Your task to perform on an android device: star an email in the gmail app Image 0: 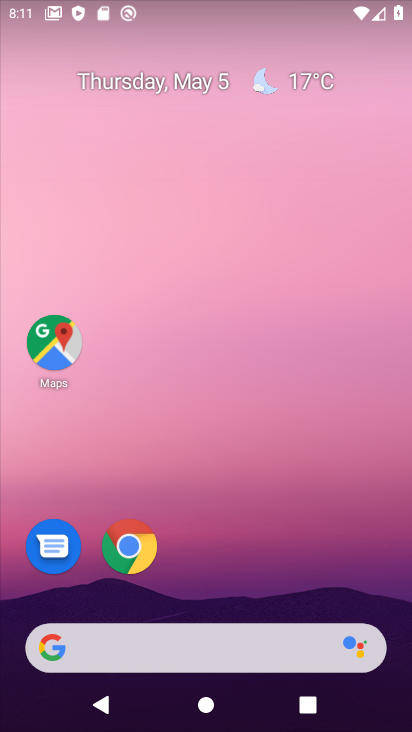
Step 0: drag from (139, 649) to (333, 65)
Your task to perform on an android device: star an email in the gmail app Image 1: 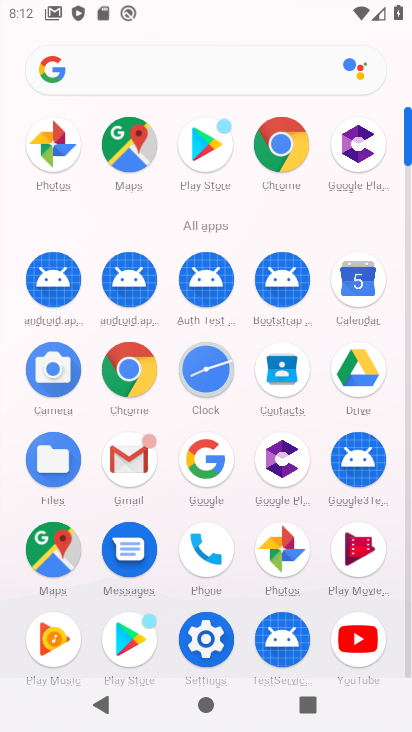
Step 1: click (130, 467)
Your task to perform on an android device: star an email in the gmail app Image 2: 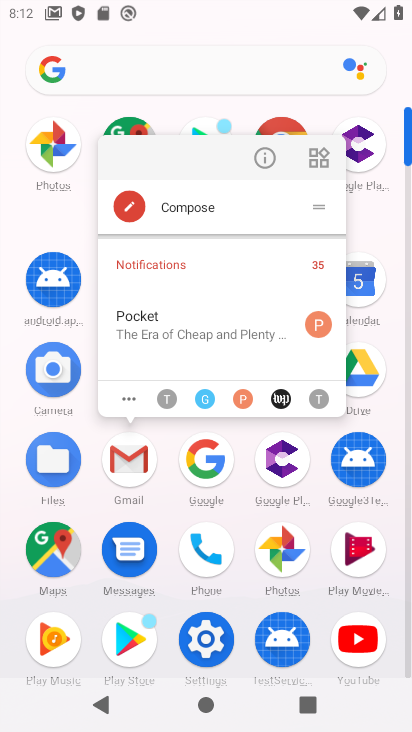
Step 2: click (124, 463)
Your task to perform on an android device: star an email in the gmail app Image 3: 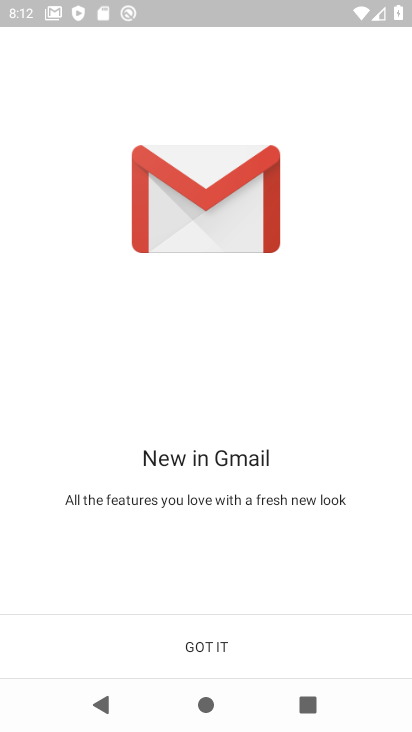
Step 3: click (215, 655)
Your task to perform on an android device: star an email in the gmail app Image 4: 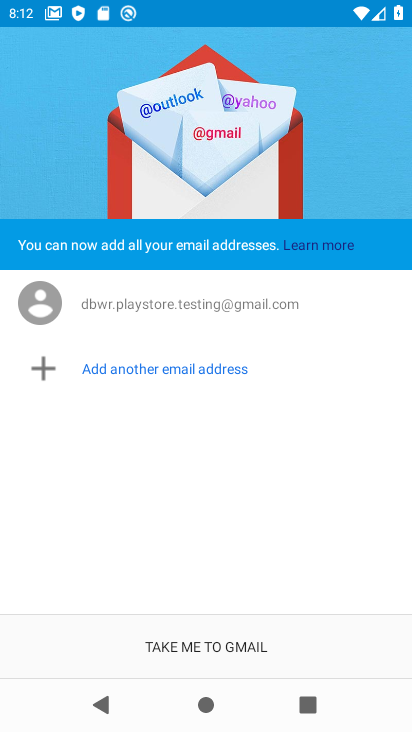
Step 4: click (211, 649)
Your task to perform on an android device: star an email in the gmail app Image 5: 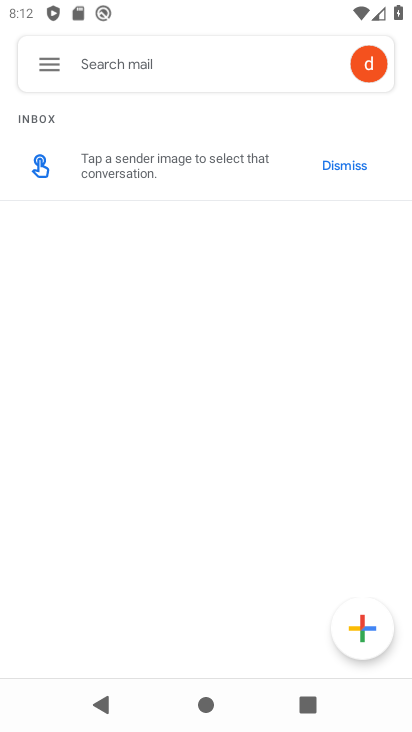
Step 5: click (46, 63)
Your task to perform on an android device: star an email in the gmail app Image 6: 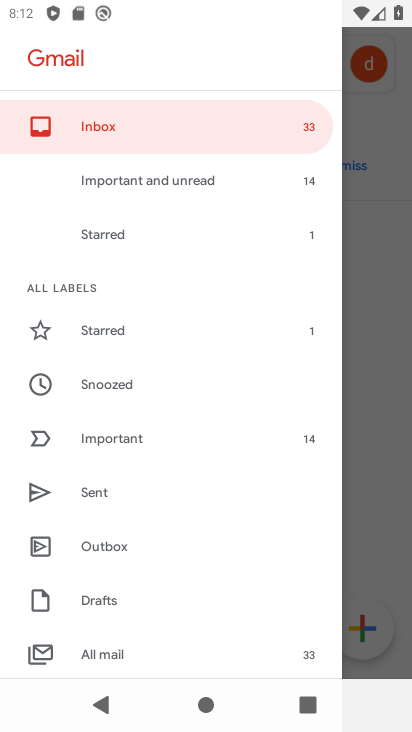
Step 6: click (103, 657)
Your task to perform on an android device: star an email in the gmail app Image 7: 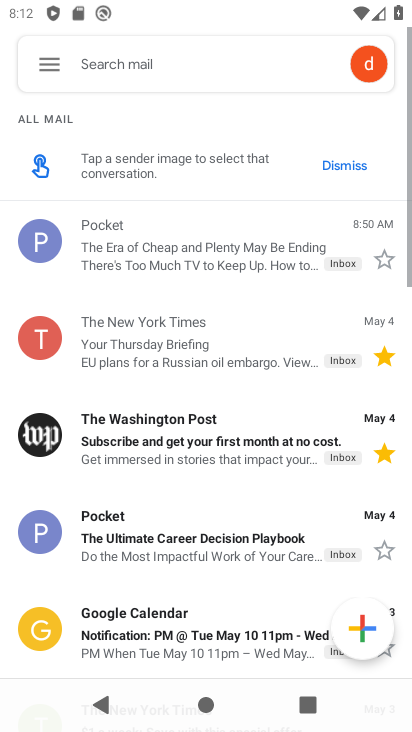
Step 7: click (44, 245)
Your task to perform on an android device: star an email in the gmail app Image 8: 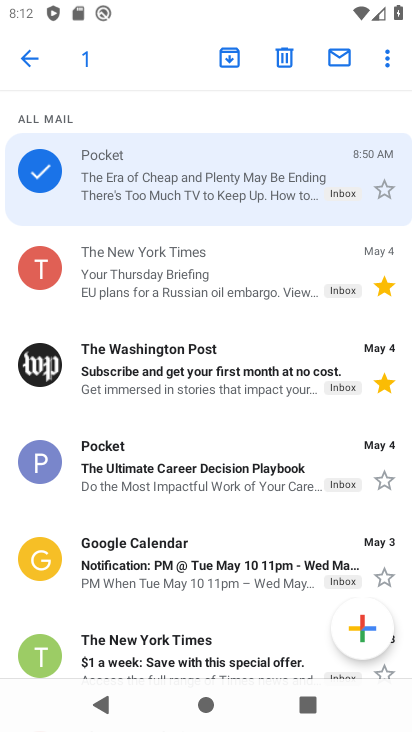
Step 8: click (388, 55)
Your task to perform on an android device: star an email in the gmail app Image 9: 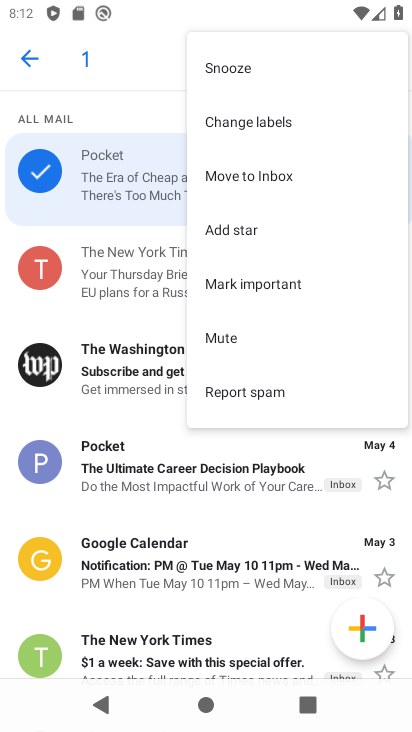
Step 9: click (238, 231)
Your task to perform on an android device: star an email in the gmail app Image 10: 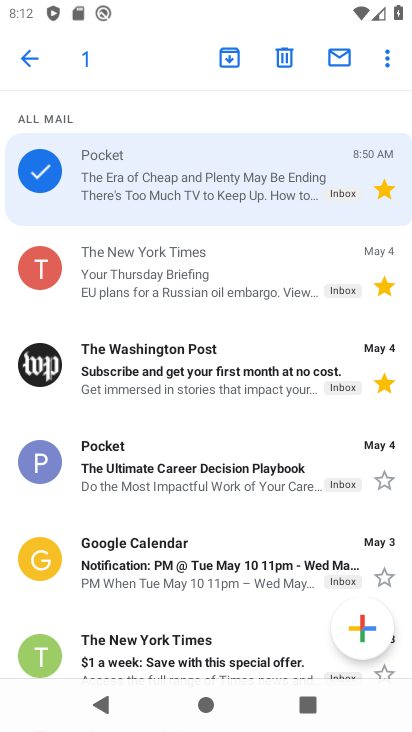
Step 10: task complete